Your task to perform on an android device: change keyboard looks Image 0: 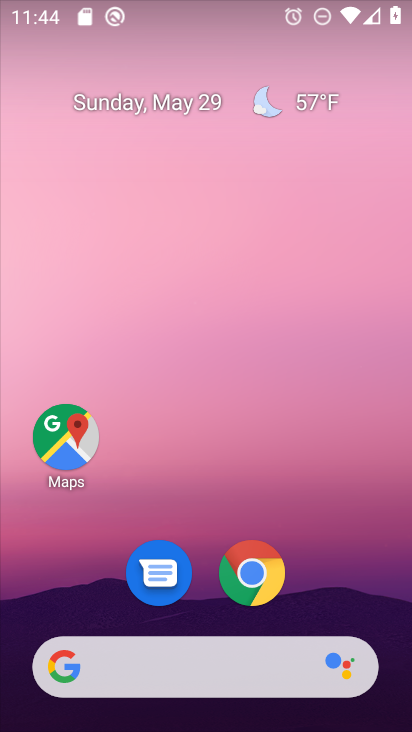
Step 0: drag from (188, 561) to (197, 35)
Your task to perform on an android device: change keyboard looks Image 1: 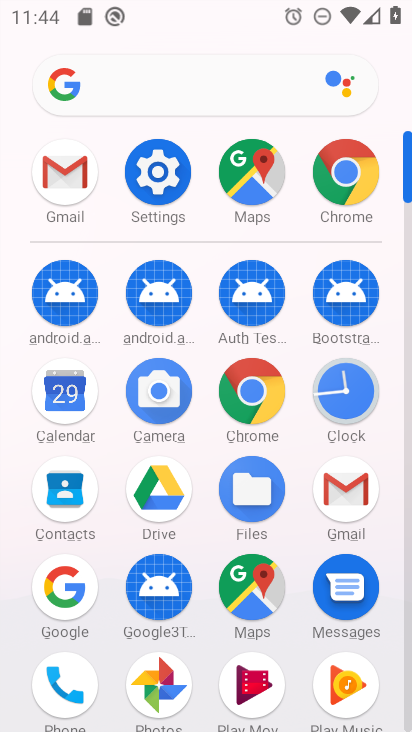
Step 1: click (168, 173)
Your task to perform on an android device: change keyboard looks Image 2: 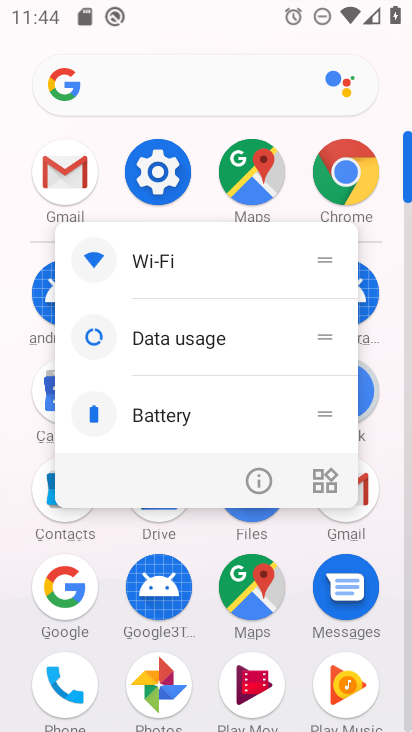
Step 2: click (168, 173)
Your task to perform on an android device: change keyboard looks Image 3: 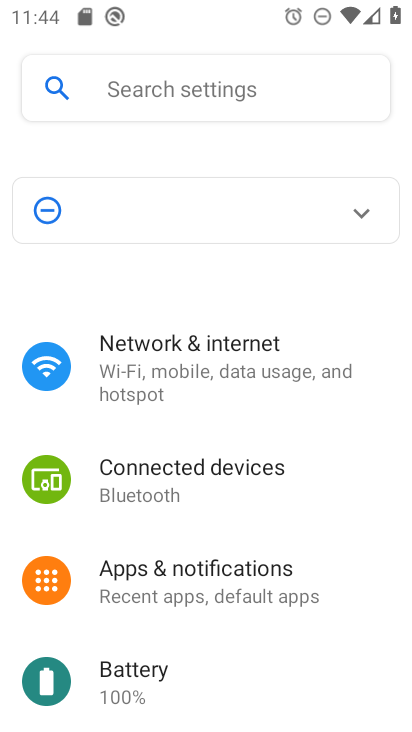
Step 3: drag from (227, 610) to (248, 129)
Your task to perform on an android device: change keyboard looks Image 4: 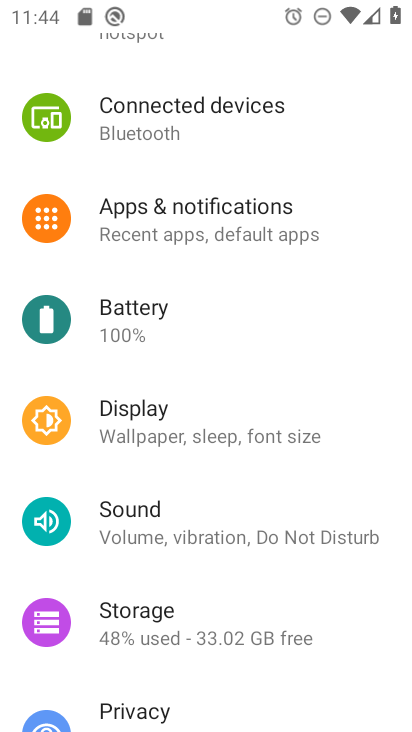
Step 4: drag from (218, 700) to (208, 228)
Your task to perform on an android device: change keyboard looks Image 5: 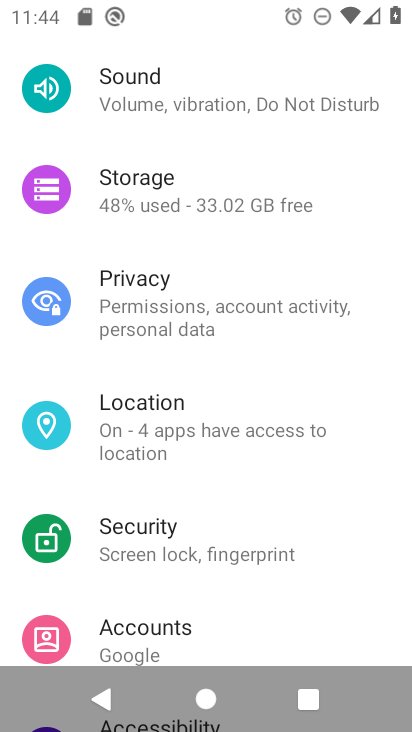
Step 5: drag from (255, 650) to (266, 273)
Your task to perform on an android device: change keyboard looks Image 6: 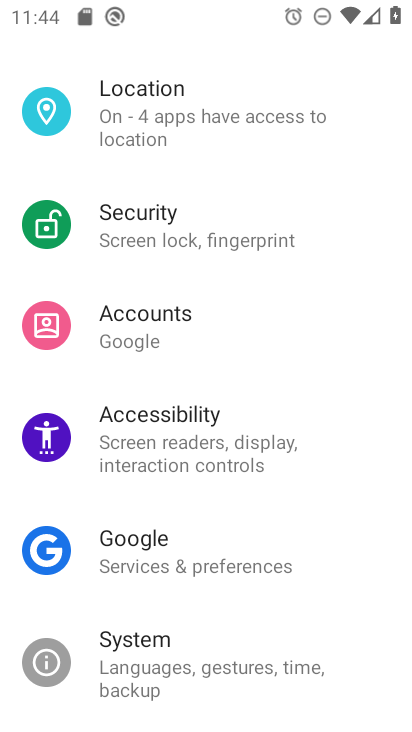
Step 6: drag from (180, 655) to (224, 284)
Your task to perform on an android device: change keyboard looks Image 7: 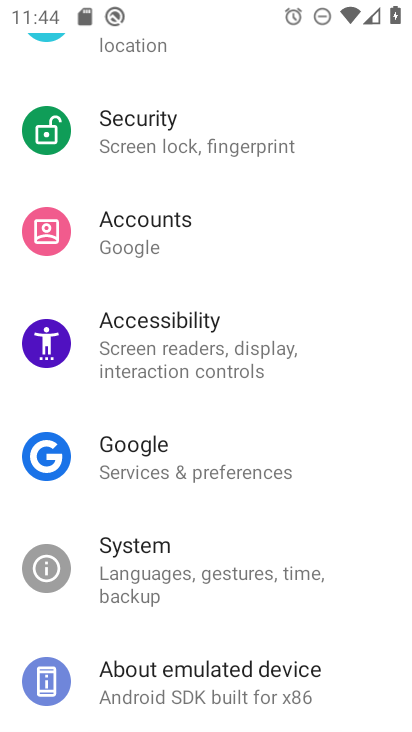
Step 7: click (239, 587)
Your task to perform on an android device: change keyboard looks Image 8: 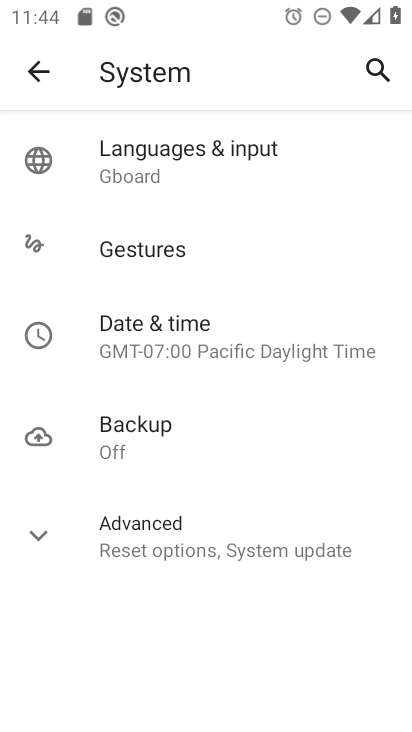
Step 8: click (192, 158)
Your task to perform on an android device: change keyboard looks Image 9: 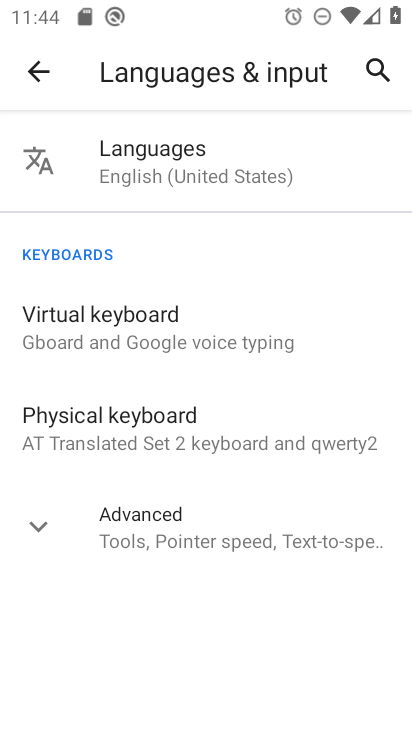
Step 9: click (156, 335)
Your task to perform on an android device: change keyboard looks Image 10: 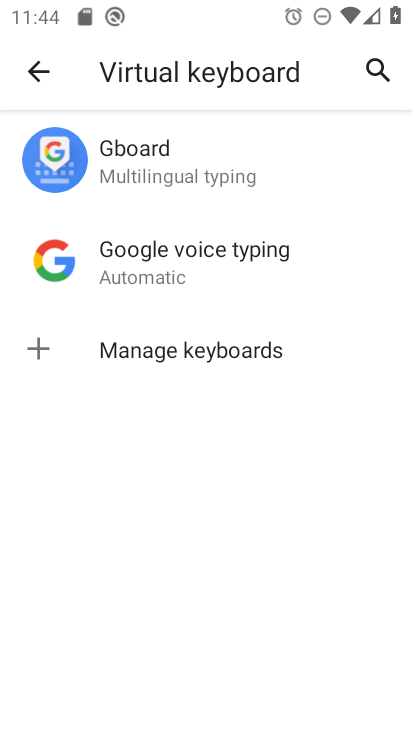
Step 10: click (148, 168)
Your task to perform on an android device: change keyboard looks Image 11: 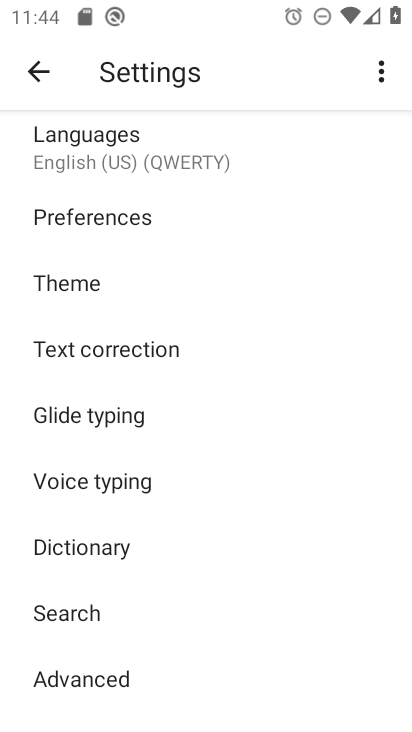
Step 11: click (115, 272)
Your task to perform on an android device: change keyboard looks Image 12: 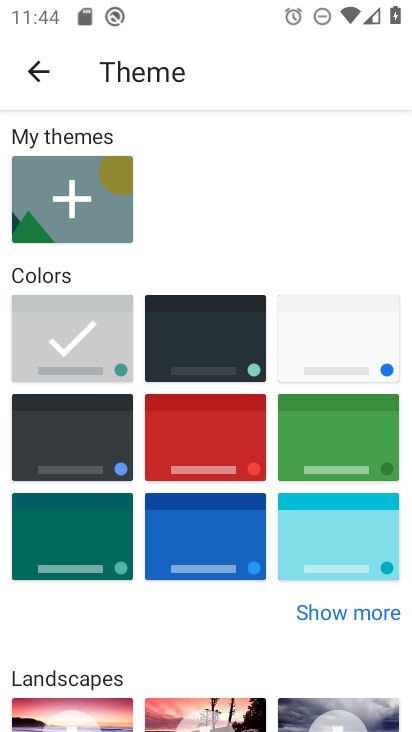
Step 12: click (238, 455)
Your task to perform on an android device: change keyboard looks Image 13: 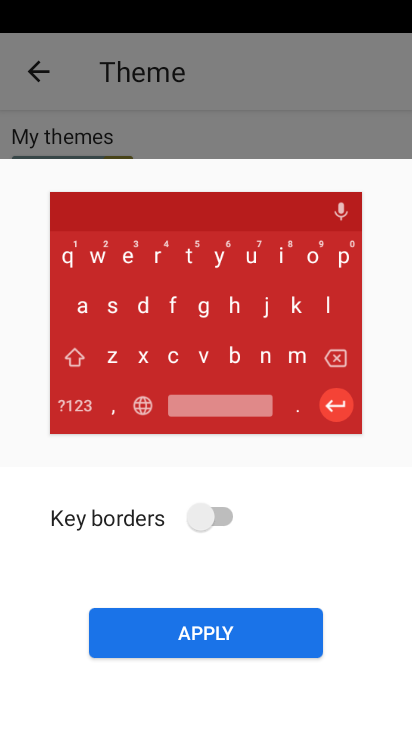
Step 13: click (213, 637)
Your task to perform on an android device: change keyboard looks Image 14: 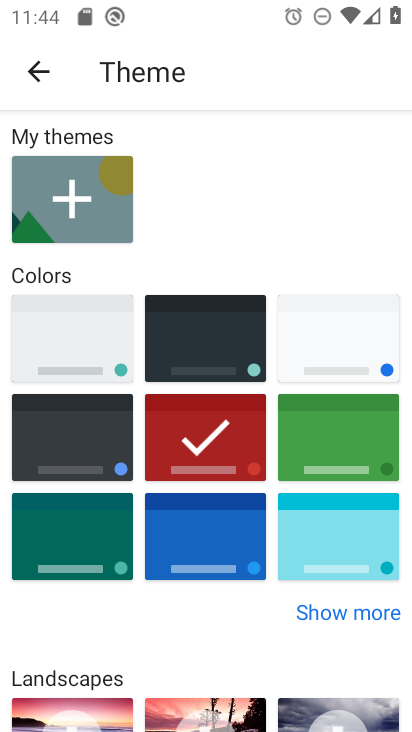
Step 14: task complete